Your task to perform on an android device: visit the assistant section in the google photos Image 0: 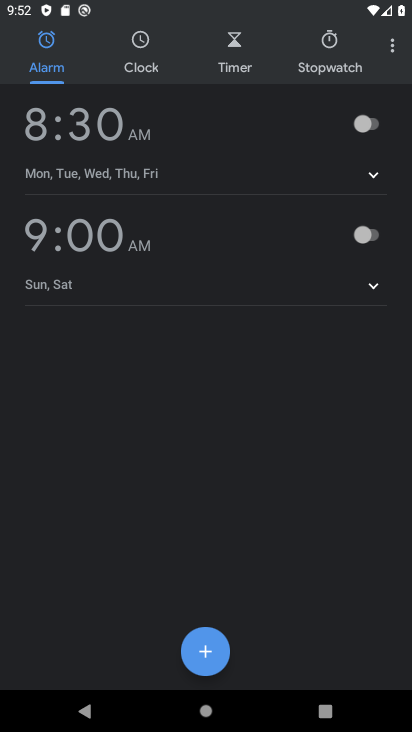
Step 0: press home button
Your task to perform on an android device: visit the assistant section in the google photos Image 1: 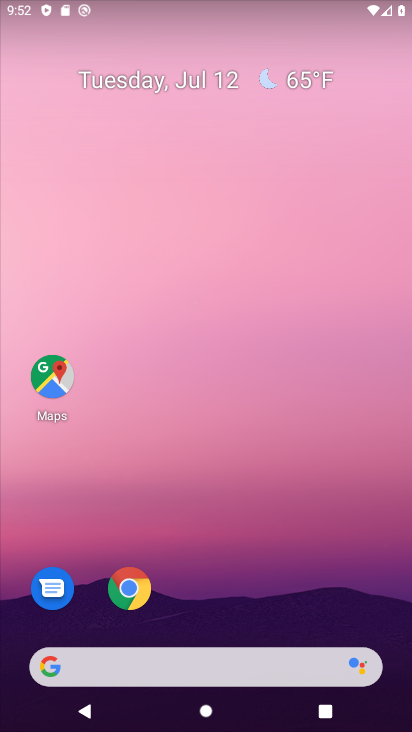
Step 1: drag from (35, 706) to (298, 30)
Your task to perform on an android device: visit the assistant section in the google photos Image 2: 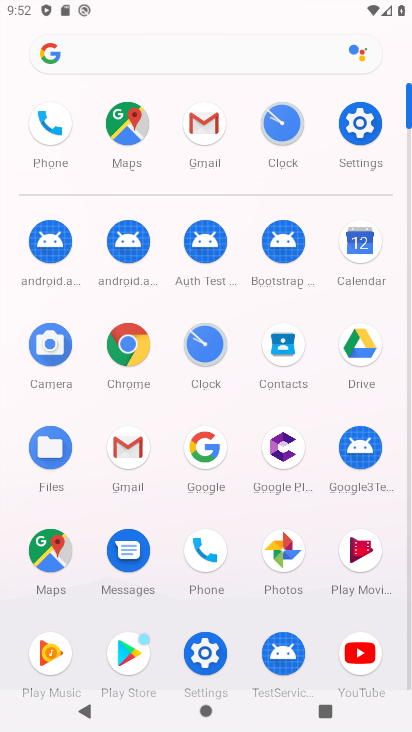
Step 2: click (280, 565)
Your task to perform on an android device: visit the assistant section in the google photos Image 3: 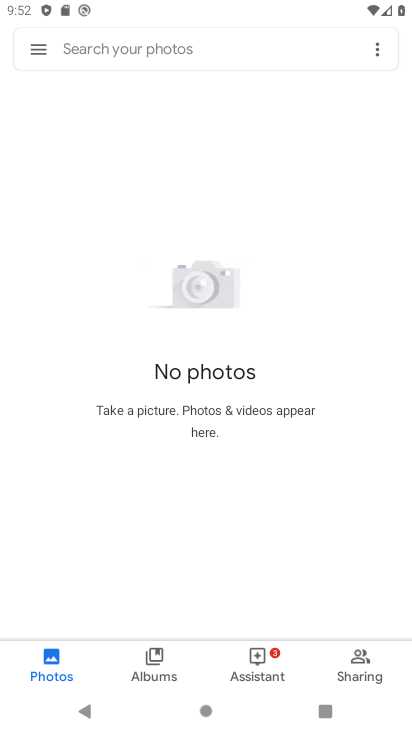
Step 3: click (263, 657)
Your task to perform on an android device: visit the assistant section in the google photos Image 4: 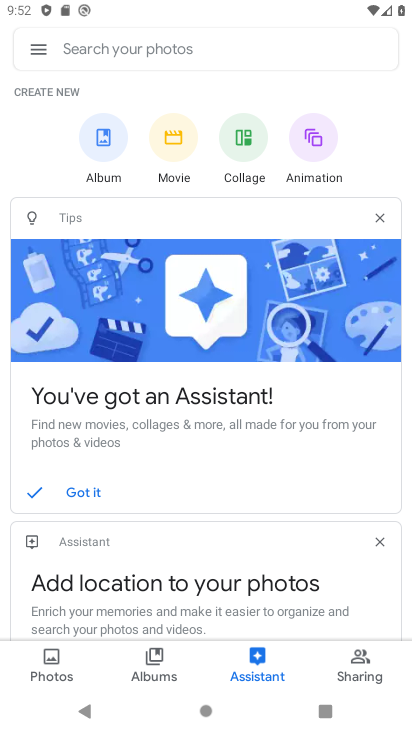
Step 4: task complete